Your task to perform on an android device: When is my next meeting? Image 0: 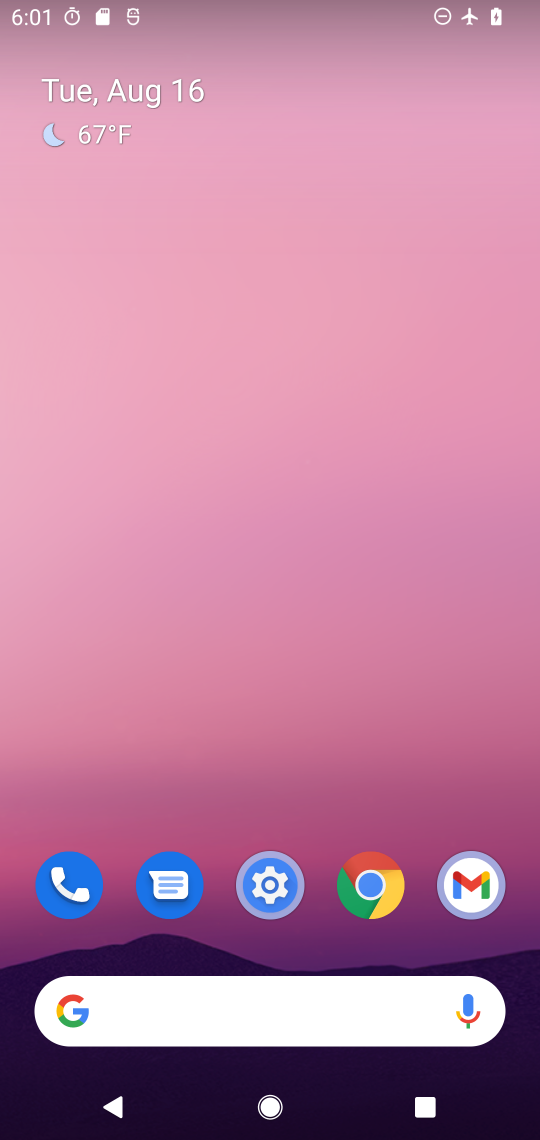
Step 0: drag from (147, 945) to (38, 40)
Your task to perform on an android device: When is my next meeting? Image 1: 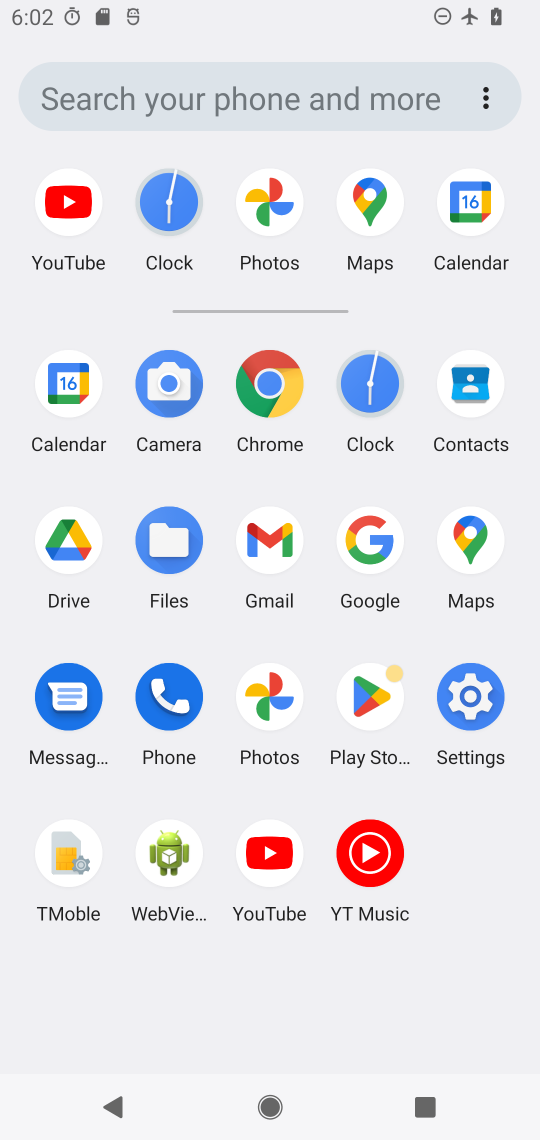
Step 1: click (69, 372)
Your task to perform on an android device: When is my next meeting? Image 2: 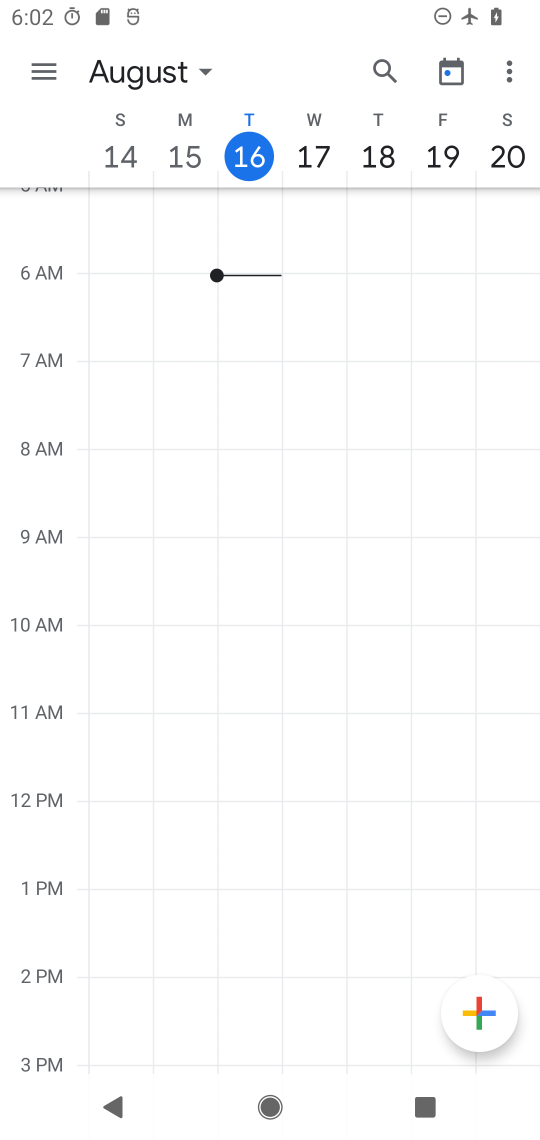
Step 2: click (316, 147)
Your task to perform on an android device: When is my next meeting? Image 3: 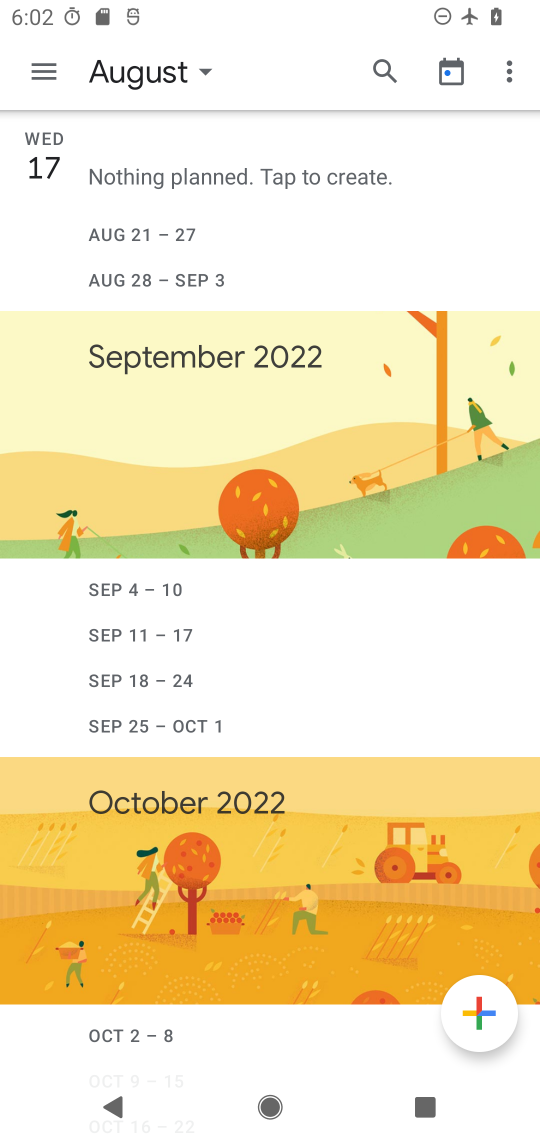
Step 3: task complete